Your task to perform on an android device: Open eBay Image 0: 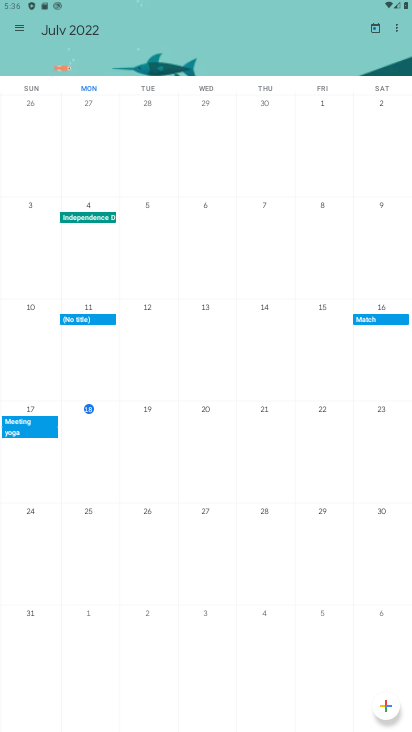
Step 0: press home button
Your task to perform on an android device: Open eBay Image 1: 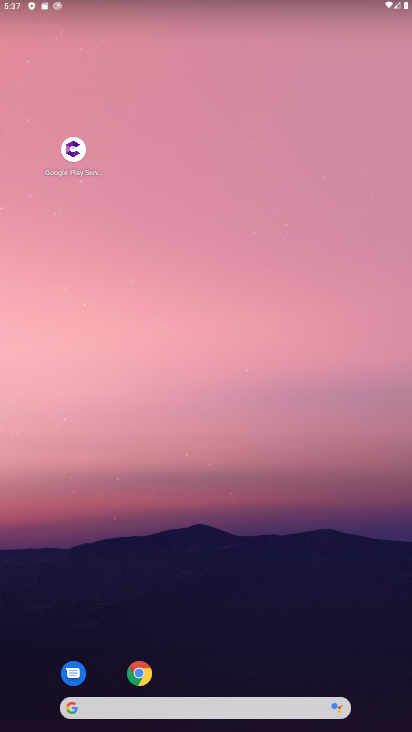
Step 1: drag from (193, 559) to (186, 265)
Your task to perform on an android device: Open eBay Image 2: 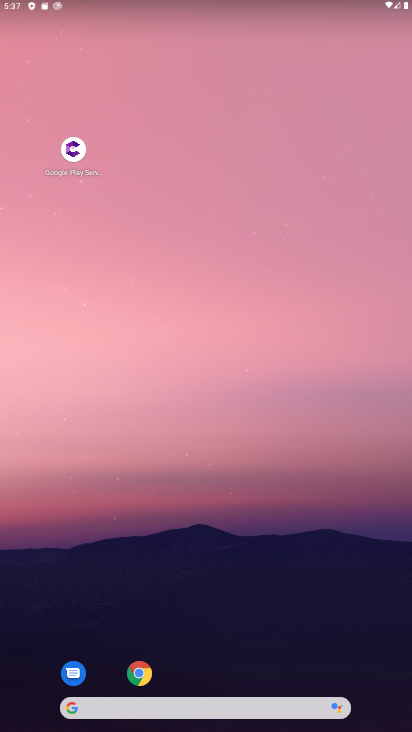
Step 2: drag from (275, 620) to (295, 205)
Your task to perform on an android device: Open eBay Image 3: 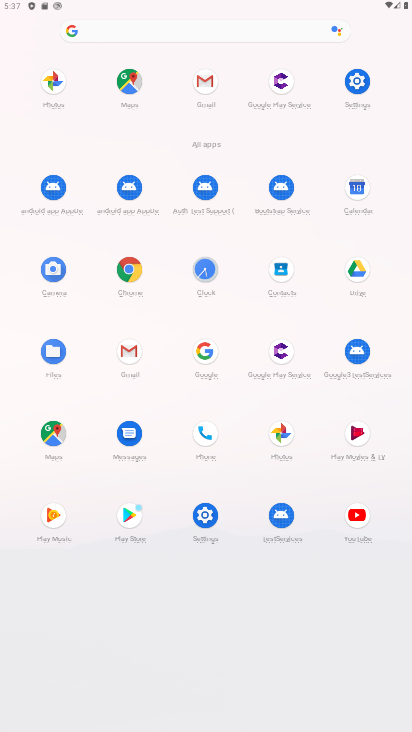
Step 3: press home button
Your task to perform on an android device: Open eBay Image 4: 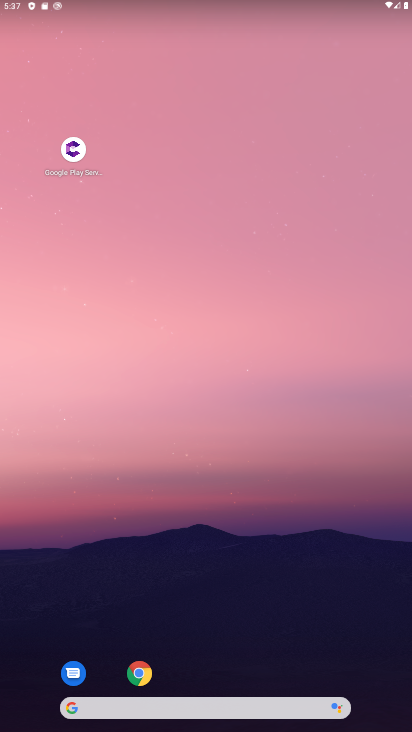
Step 4: drag from (222, 591) to (326, 152)
Your task to perform on an android device: Open eBay Image 5: 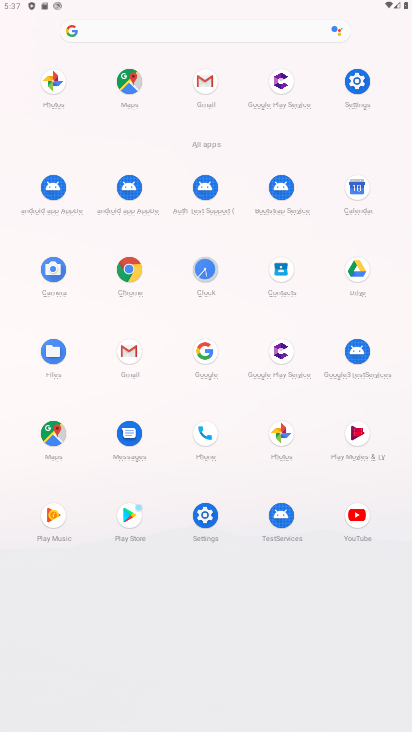
Step 5: press home button
Your task to perform on an android device: Open eBay Image 6: 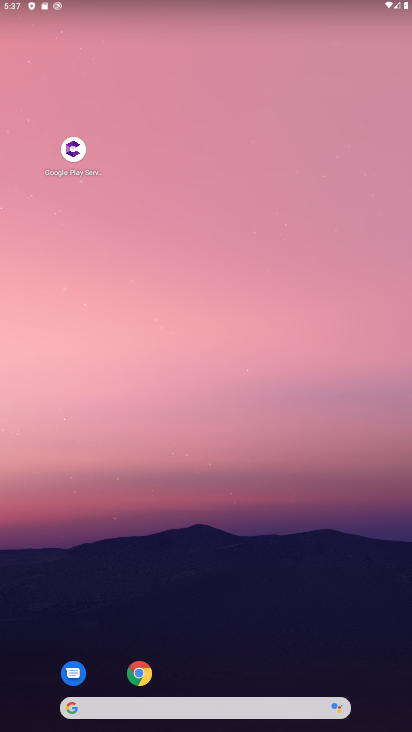
Step 6: click (179, 707)
Your task to perform on an android device: Open eBay Image 7: 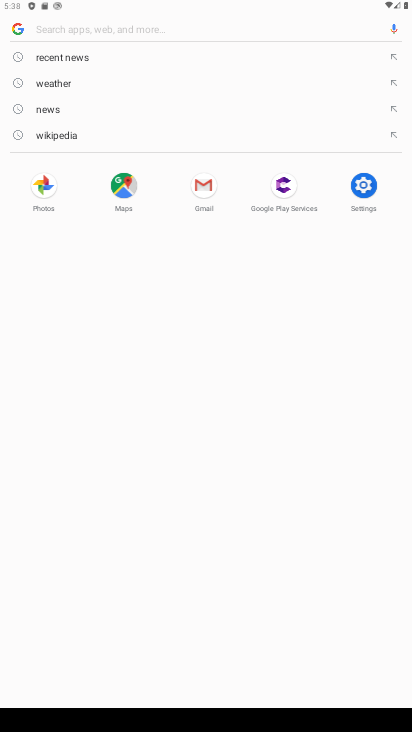
Step 7: type "ebay"
Your task to perform on an android device: Open eBay Image 8: 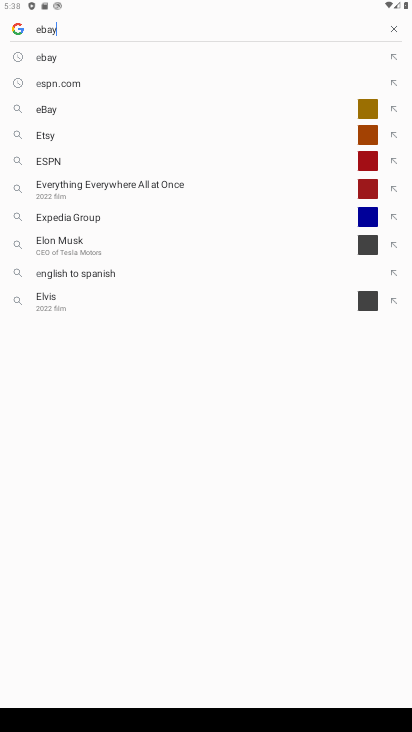
Step 8: press enter
Your task to perform on an android device: Open eBay Image 9: 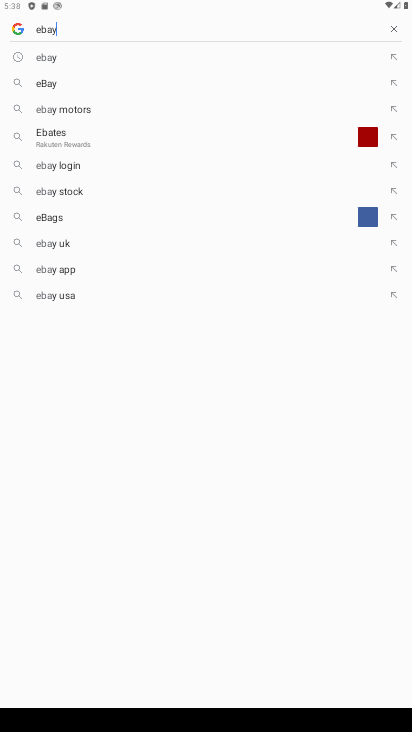
Step 9: type ""
Your task to perform on an android device: Open eBay Image 10: 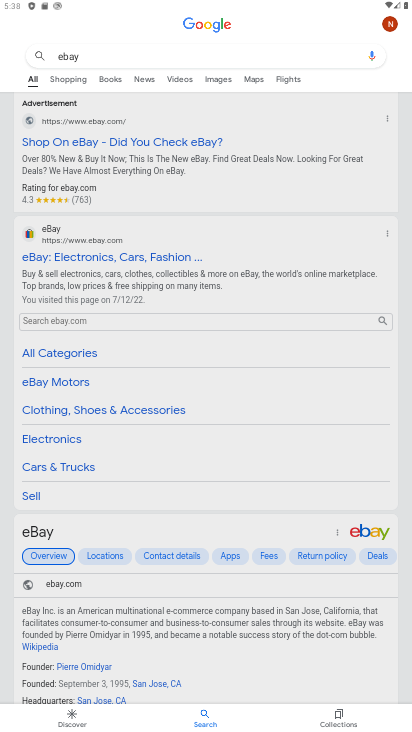
Step 10: click (78, 257)
Your task to perform on an android device: Open eBay Image 11: 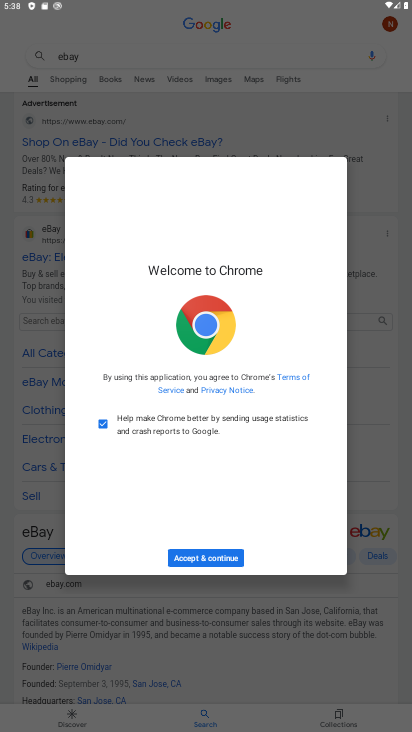
Step 11: click (225, 560)
Your task to perform on an android device: Open eBay Image 12: 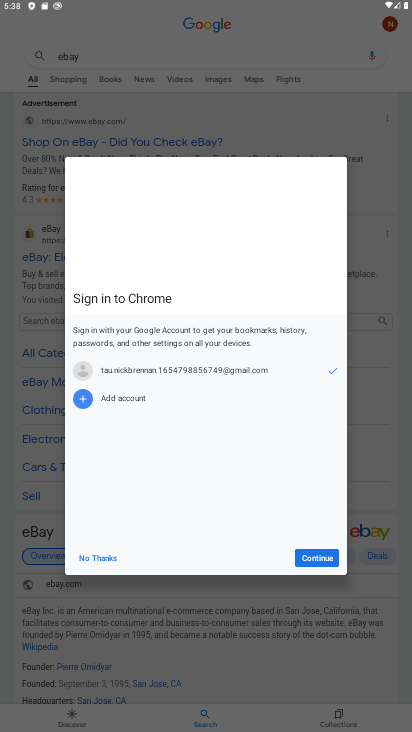
Step 12: click (103, 556)
Your task to perform on an android device: Open eBay Image 13: 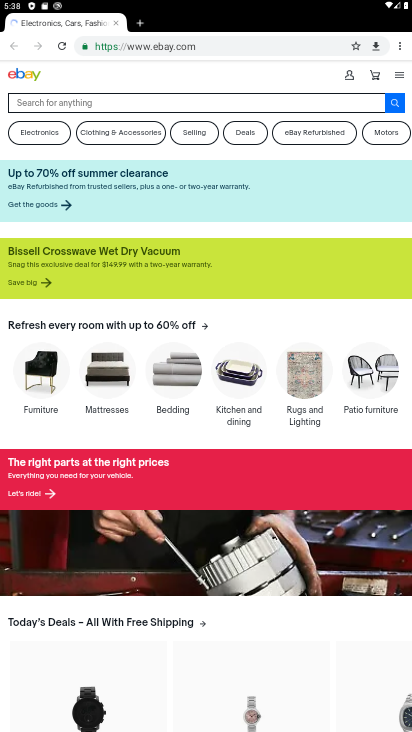
Step 13: task complete